Your task to perform on an android device: turn off translation in the chrome app Image 0: 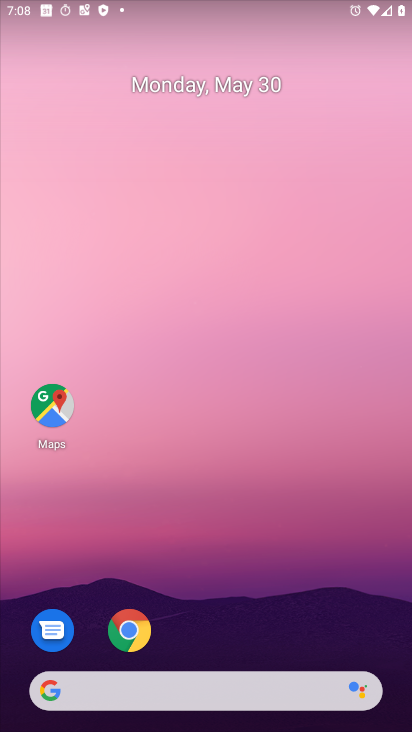
Step 0: drag from (311, 629) to (207, 5)
Your task to perform on an android device: turn off translation in the chrome app Image 1: 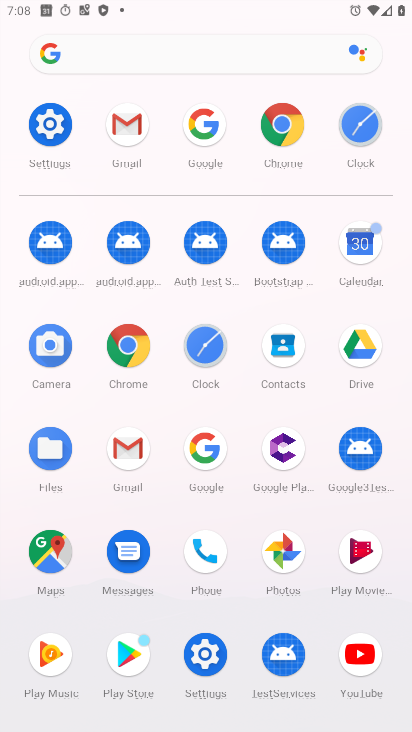
Step 1: click (267, 106)
Your task to perform on an android device: turn off translation in the chrome app Image 2: 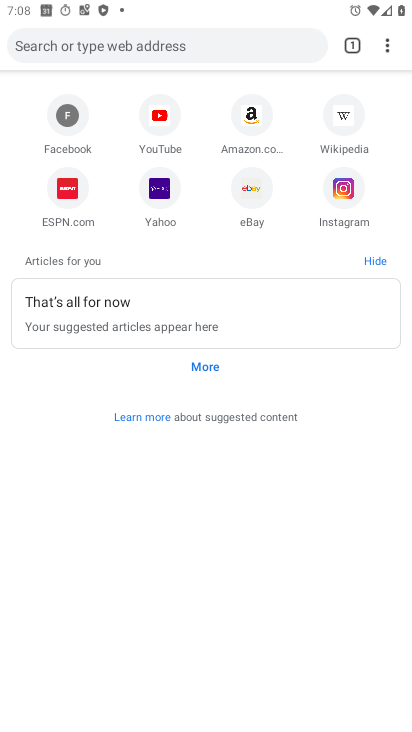
Step 2: click (388, 51)
Your task to perform on an android device: turn off translation in the chrome app Image 3: 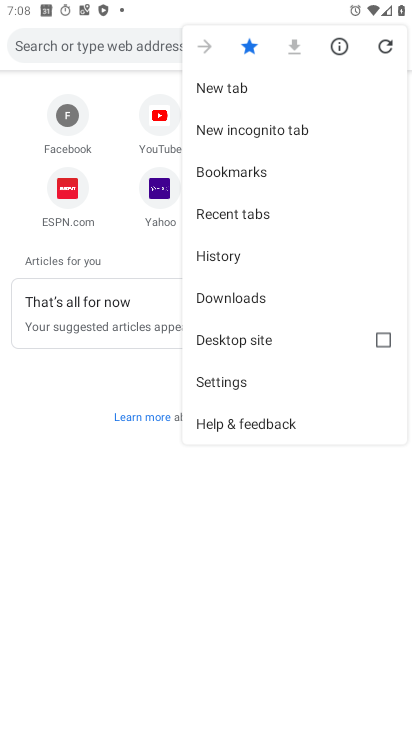
Step 3: click (267, 374)
Your task to perform on an android device: turn off translation in the chrome app Image 4: 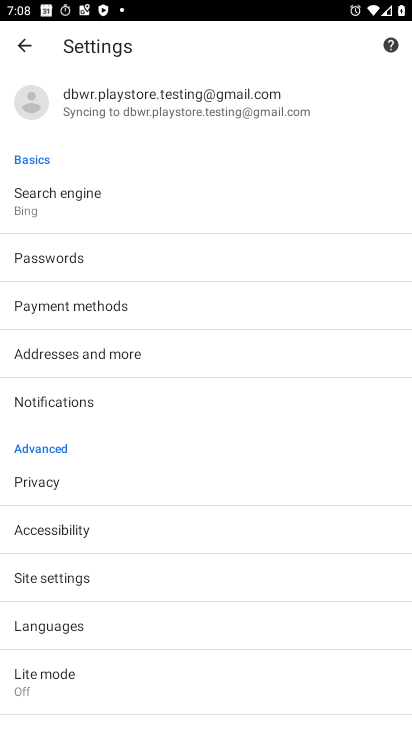
Step 4: click (120, 630)
Your task to perform on an android device: turn off translation in the chrome app Image 5: 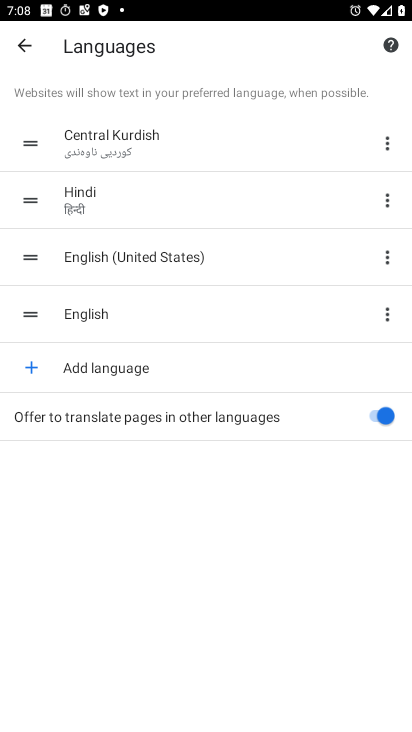
Step 5: click (367, 412)
Your task to perform on an android device: turn off translation in the chrome app Image 6: 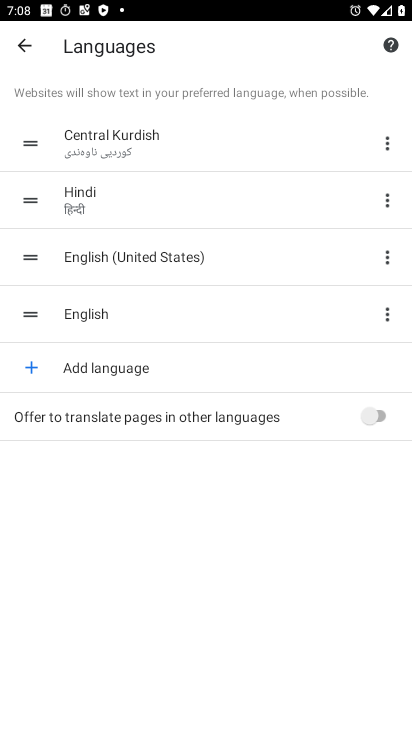
Step 6: task complete